Your task to perform on an android device: toggle airplane mode Image 0: 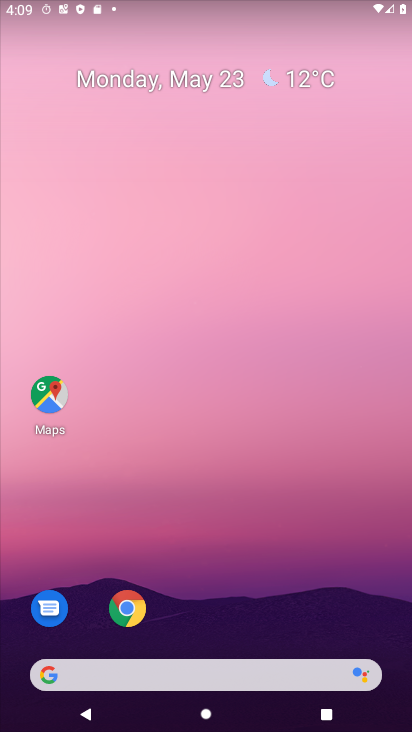
Step 0: drag from (311, 563) to (243, 36)
Your task to perform on an android device: toggle airplane mode Image 1: 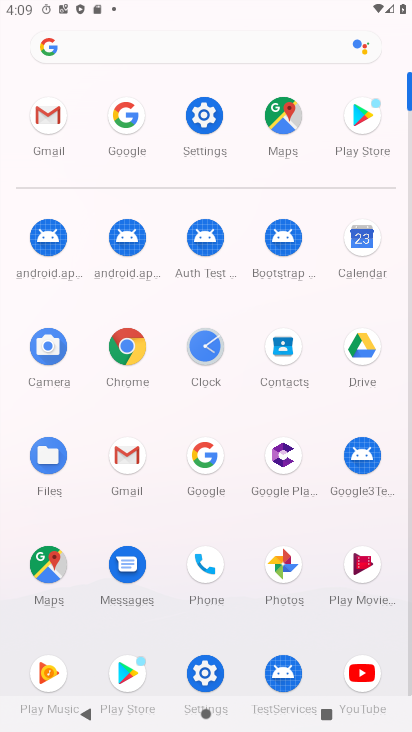
Step 1: click (205, 111)
Your task to perform on an android device: toggle airplane mode Image 2: 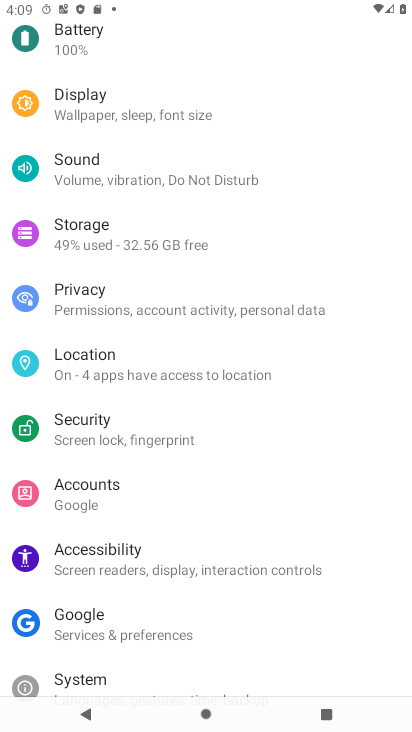
Step 2: drag from (196, 110) to (193, 696)
Your task to perform on an android device: toggle airplane mode Image 3: 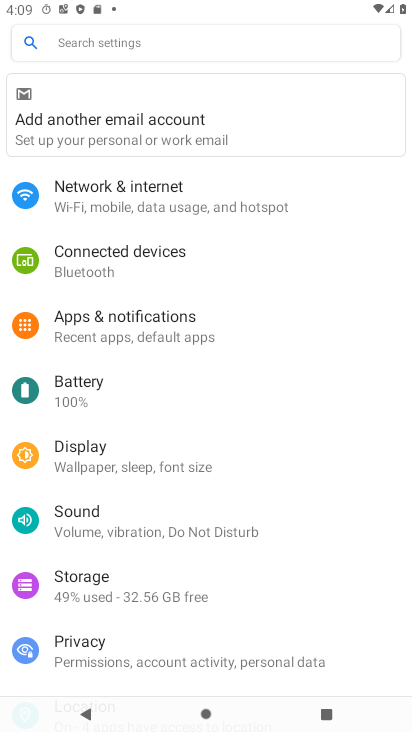
Step 3: click (176, 203)
Your task to perform on an android device: toggle airplane mode Image 4: 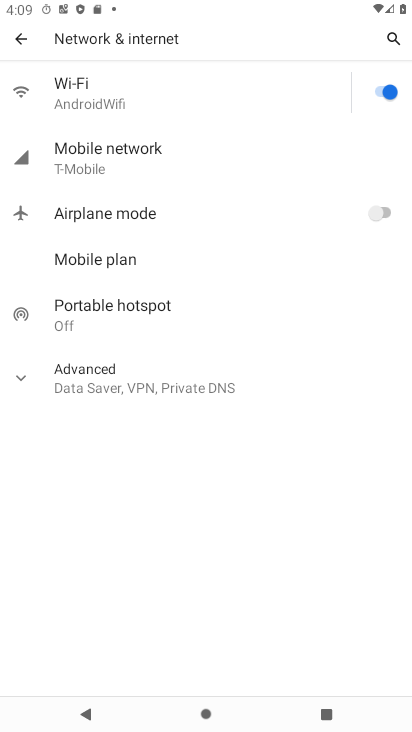
Step 4: click (378, 208)
Your task to perform on an android device: toggle airplane mode Image 5: 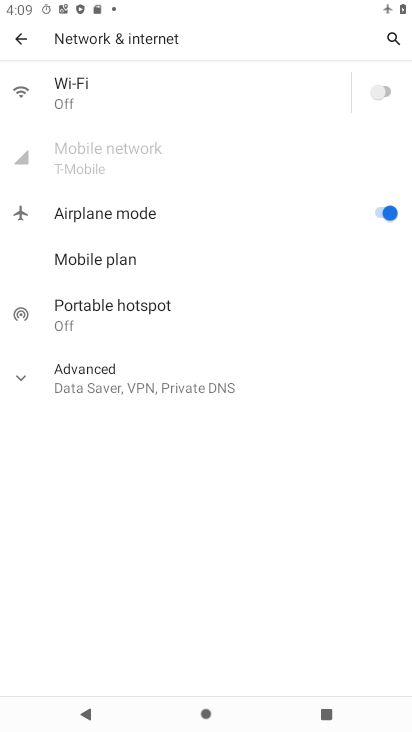
Step 5: task complete